Your task to perform on an android device: turn on data saver in the chrome app Image 0: 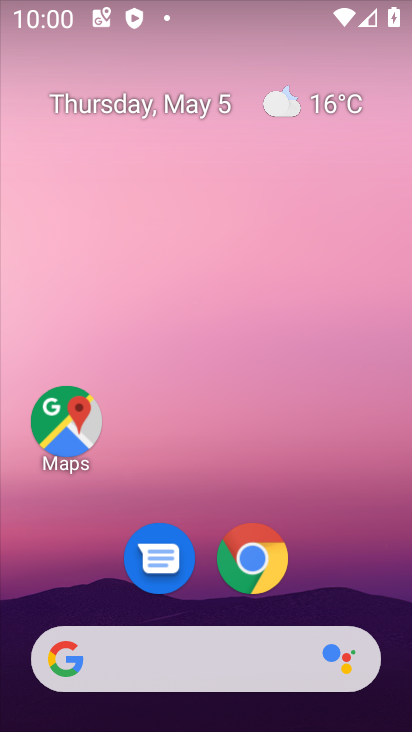
Step 0: drag from (343, 571) to (259, 216)
Your task to perform on an android device: turn on data saver in the chrome app Image 1: 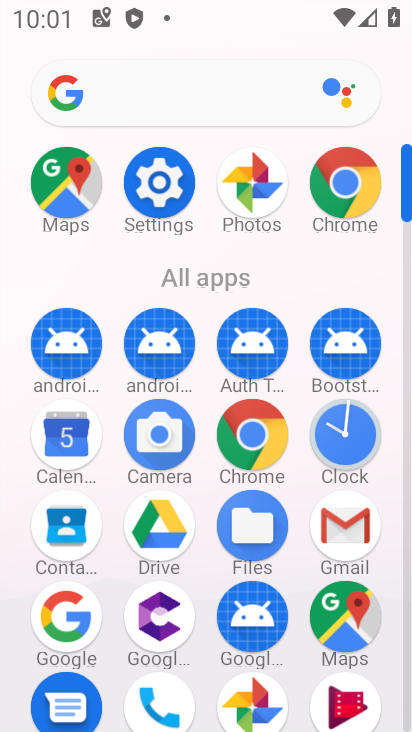
Step 1: click (354, 177)
Your task to perform on an android device: turn on data saver in the chrome app Image 2: 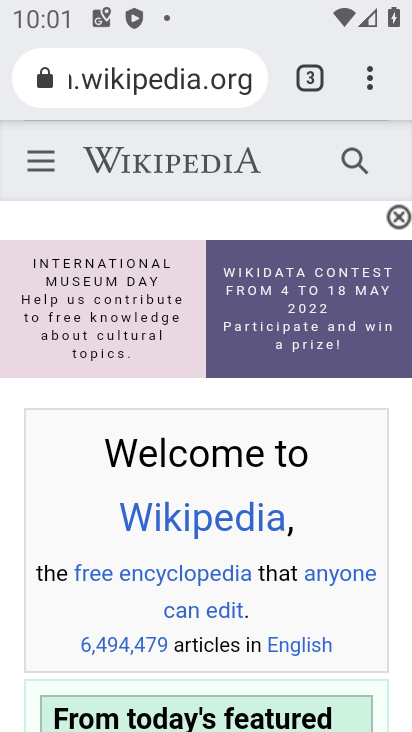
Step 2: drag from (364, 102) to (90, 611)
Your task to perform on an android device: turn on data saver in the chrome app Image 3: 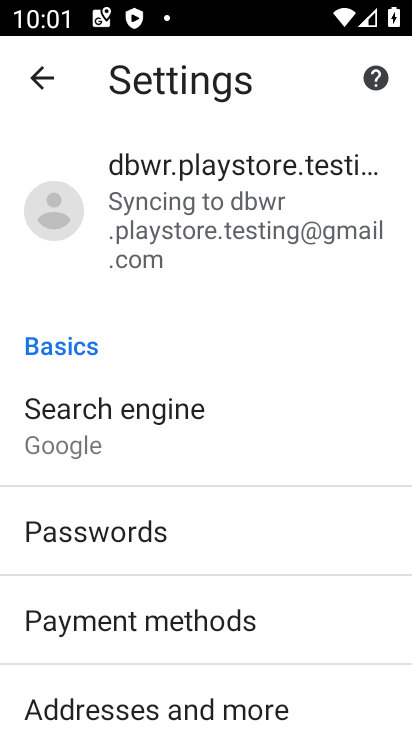
Step 3: drag from (214, 685) to (199, 294)
Your task to perform on an android device: turn on data saver in the chrome app Image 4: 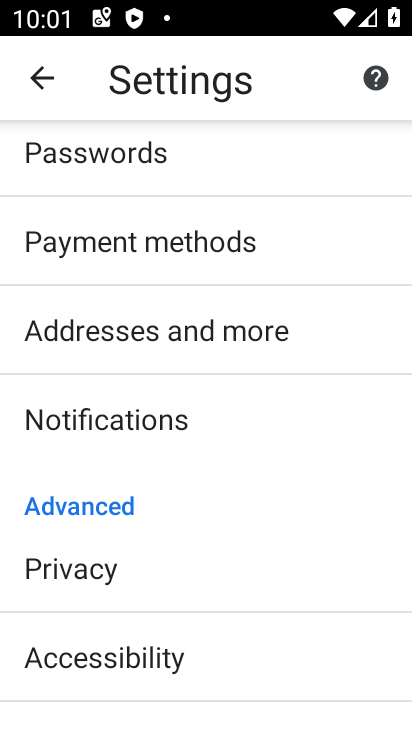
Step 4: drag from (242, 507) to (218, 103)
Your task to perform on an android device: turn on data saver in the chrome app Image 5: 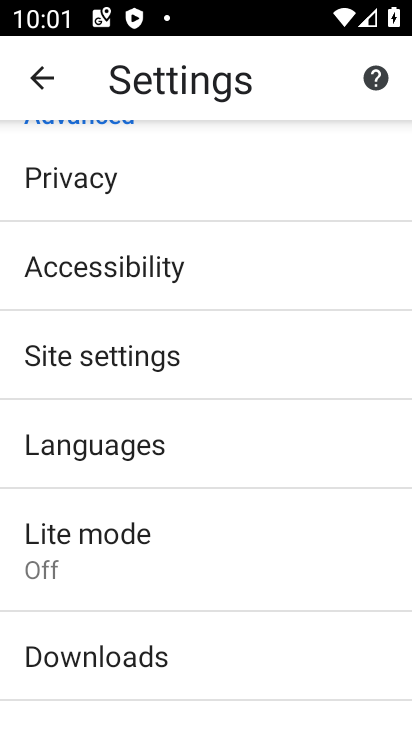
Step 5: click (180, 524)
Your task to perform on an android device: turn on data saver in the chrome app Image 6: 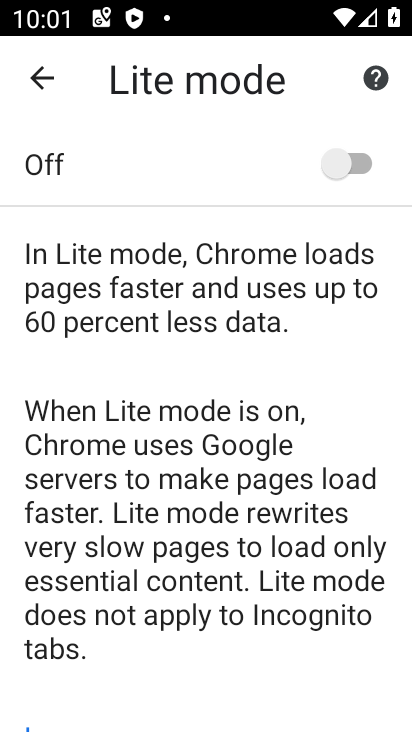
Step 6: click (349, 167)
Your task to perform on an android device: turn on data saver in the chrome app Image 7: 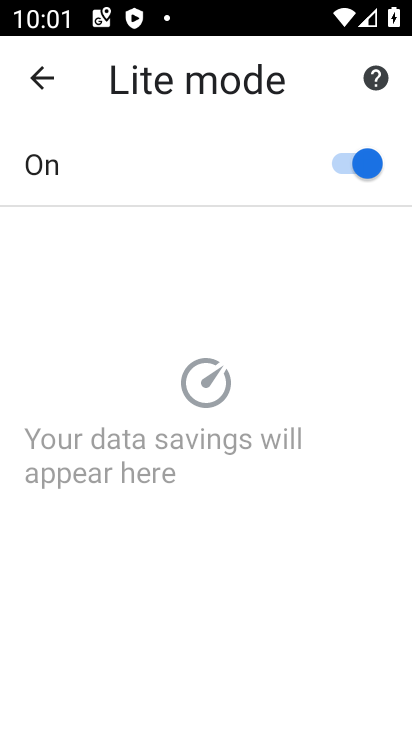
Step 7: task complete